Your task to perform on an android device: Open Chrome and go to settings Image 0: 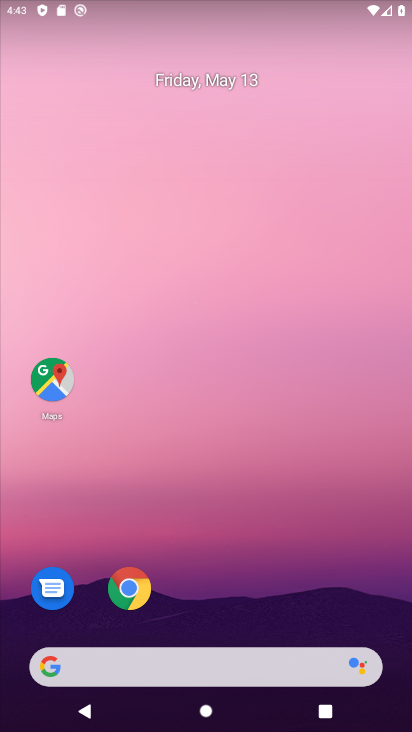
Step 0: click (133, 602)
Your task to perform on an android device: Open Chrome and go to settings Image 1: 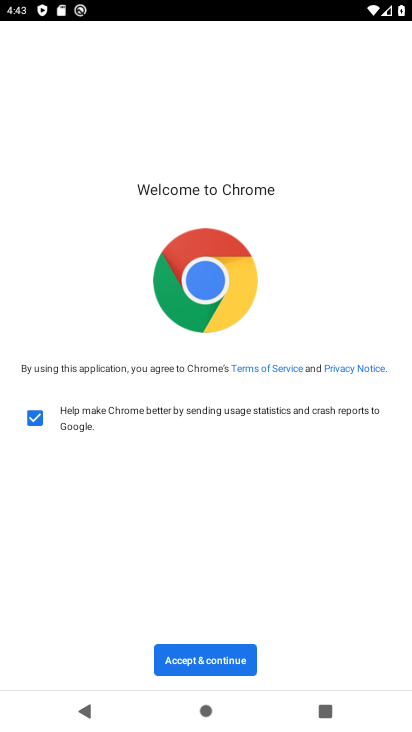
Step 1: click (192, 666)
Your task to perform on an android device: Open Chrome and go to settings Image 2: 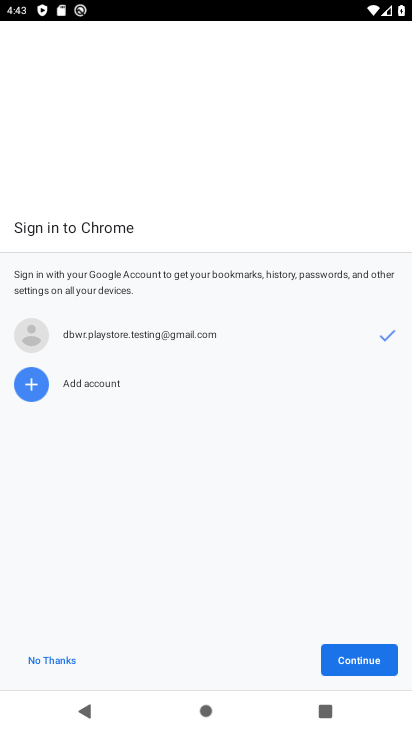
Step 2: click (358, 670)
Your task to perform on an android device: Open Chrome and go to settings Image 3: 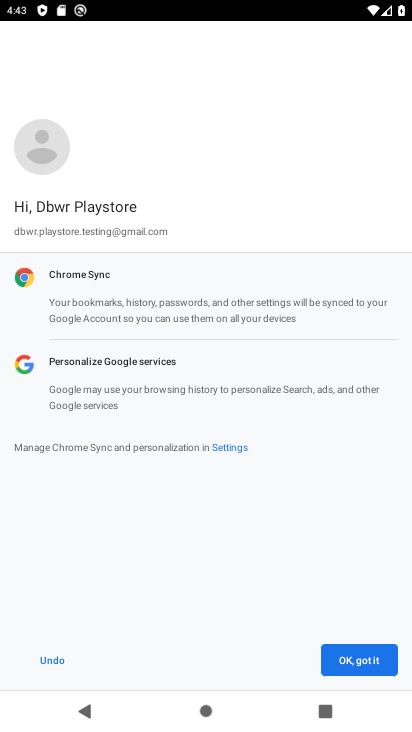
Step 3: click (358, 669)
Your task to perform on an android device: Open Chrome and go to settings Image 4: 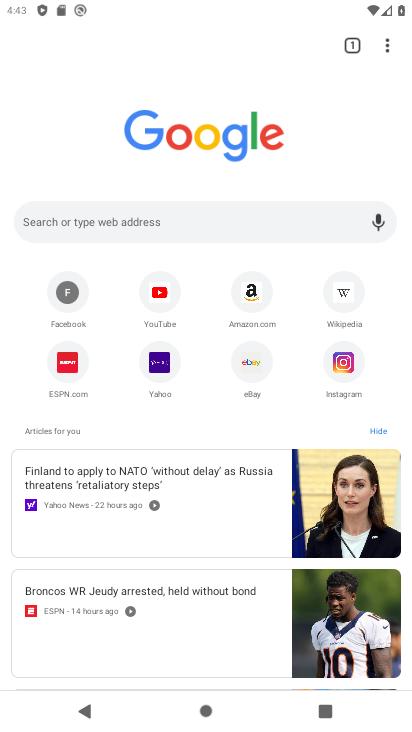
Step 4: task complete